Your task to perform on an android device: What's the weather going to be tomorrow? Image 0: 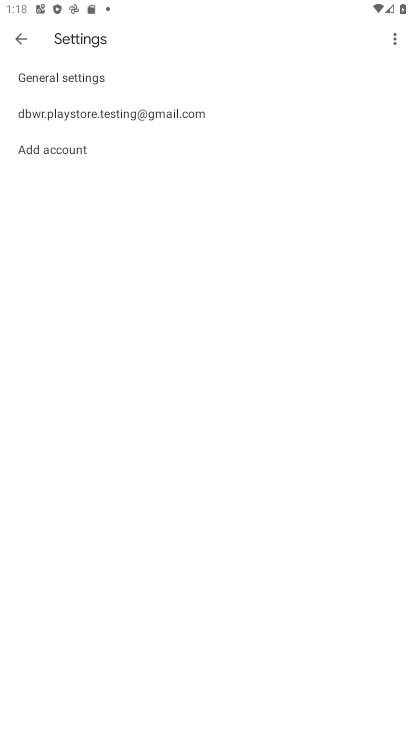
Step 0: press home button
Your task to perform on an android device: What's the weather going to be tomorrow? Image 1: 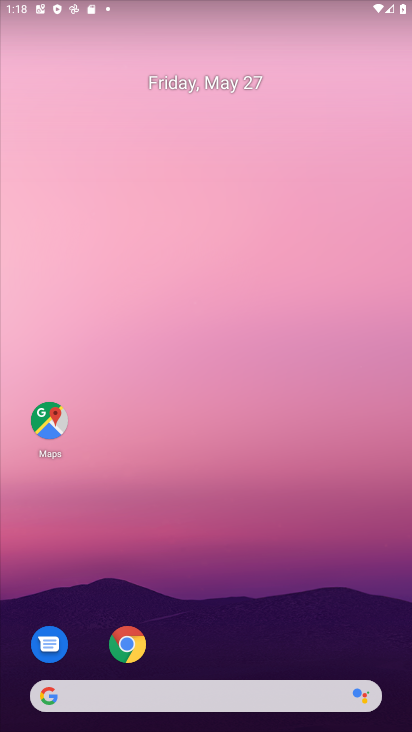
Step 1: drag from (325, 658) to (311, 80)
Your task to perform on an android device: What's the weather going to be tomorrow? Image 2: 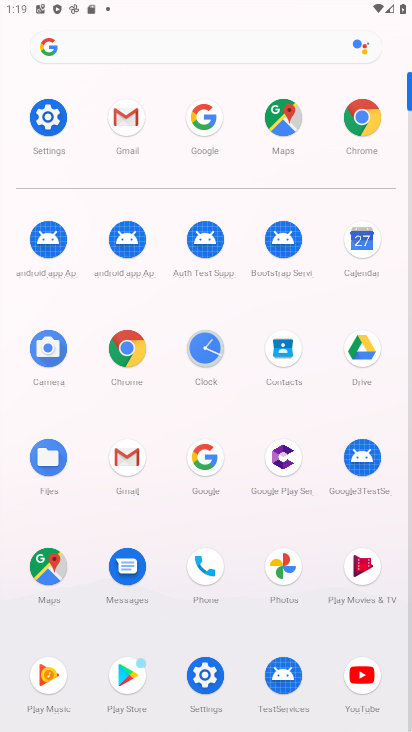
Step 2: click (192, 461)
Your task to perform on an android device: What's the weather going to be tomorrow? Image 3: 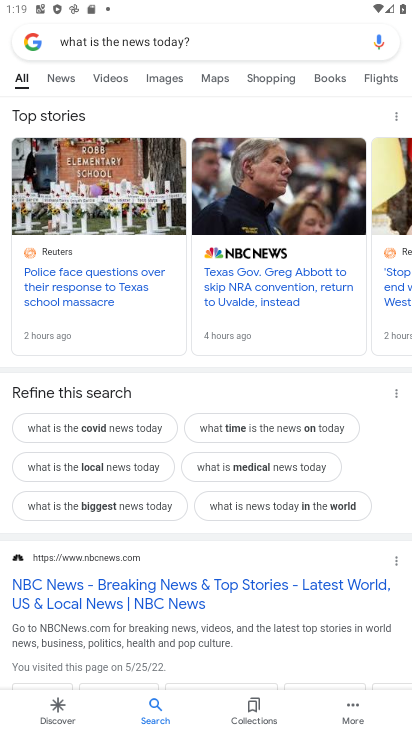
Step 3: press back button
Your task to perform on an android device: What's the weather going to be tomorrow? Image 4: 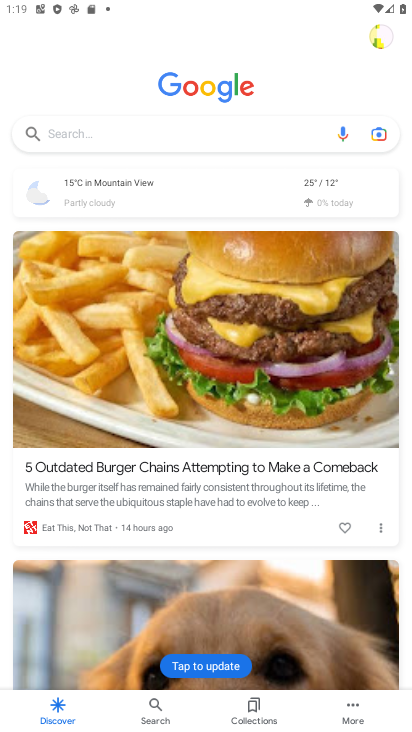
Step 4: click (146, 140)
Your task to perform on an android device: What's the weather going to be tomorrow? Image 5: 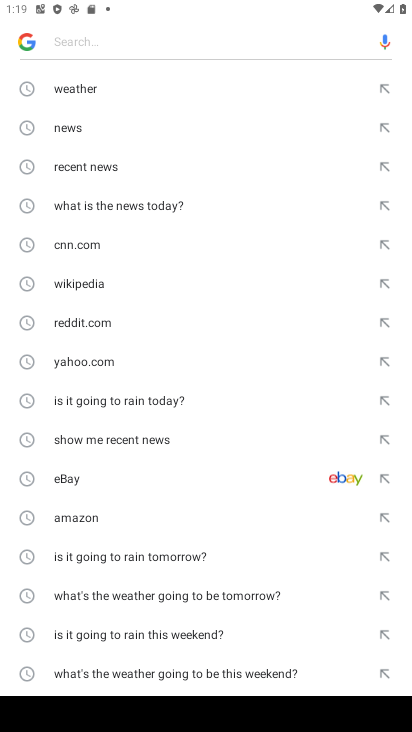
Step 5: click (219, 596)
Your task to perform on an android device: What's the weather going to be tomorrow? Image 6: 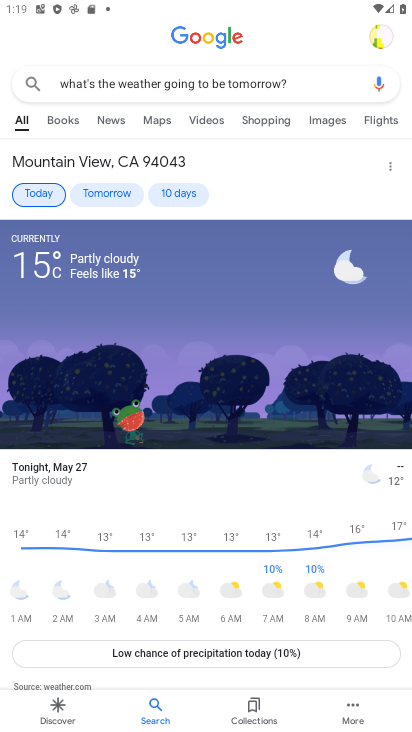
Step 6: task complete